Your task to perform on an android device: open device folders in google photos Image 0: 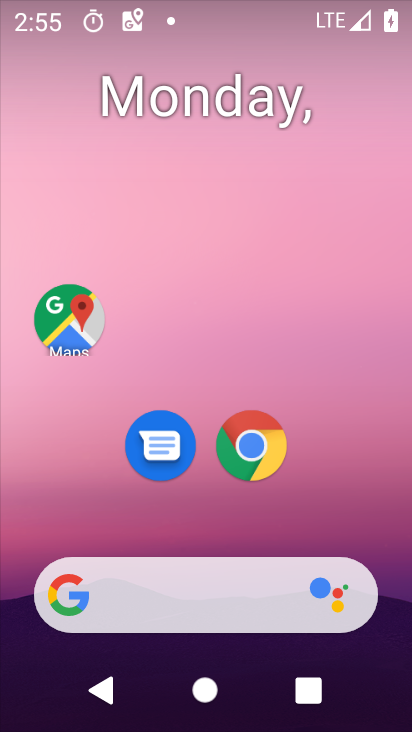
Step 0: drag from (217, 584) to (217, 171)
Your task to perform on an android device: open device folders in google photos Image 1: 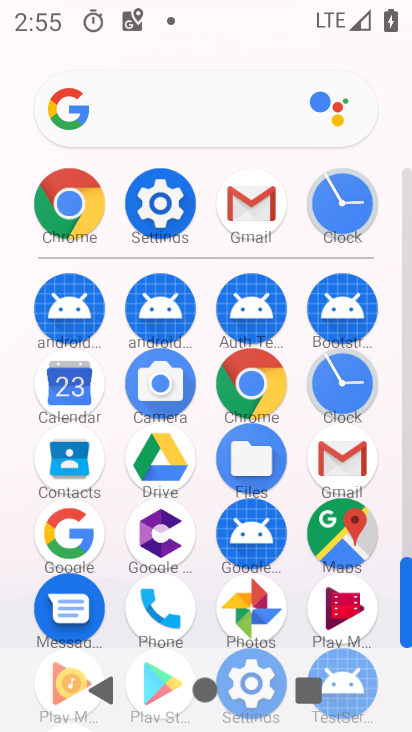
Step 1: click (238, 590)
Your task to perform on an android device: open device folders in google photos Image 2: 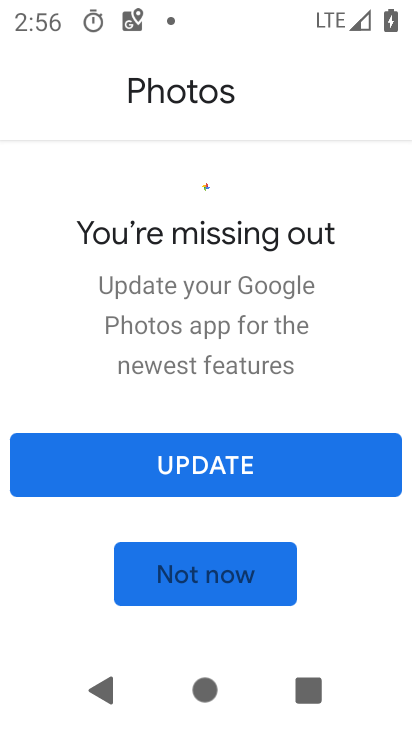
Step 2: drag from (238, 590) to (188, 590)
Your task to perform on an android device: open device folders in google photos Image 3: 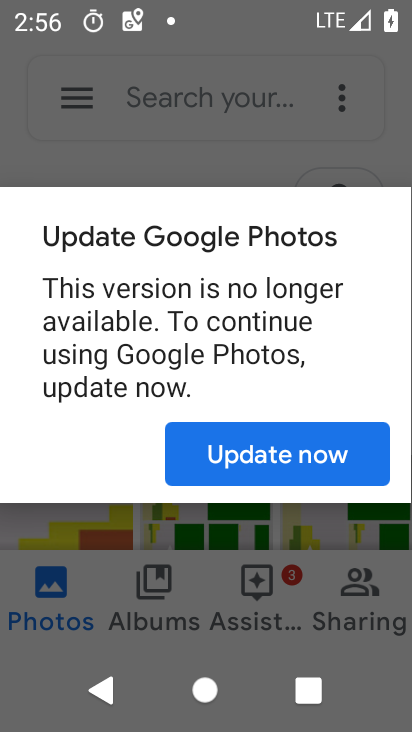
Step 3: click (236, 469)
Your task to perform on an android device: open device folders in google photos Image 4: 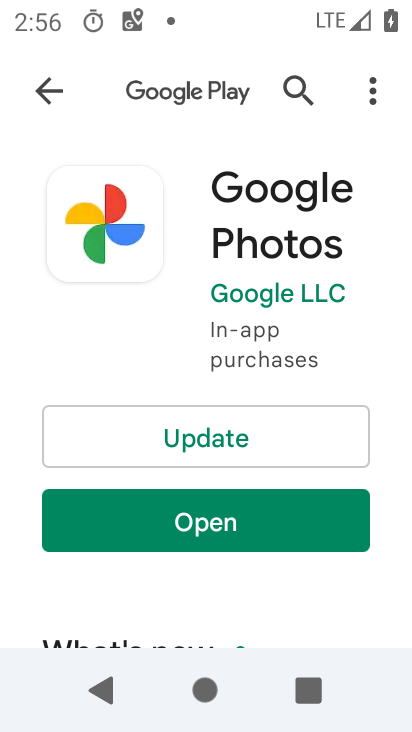
Step 4: click (208, 460)
Your task to perform on an android device: open device folders in google photos Image 5: 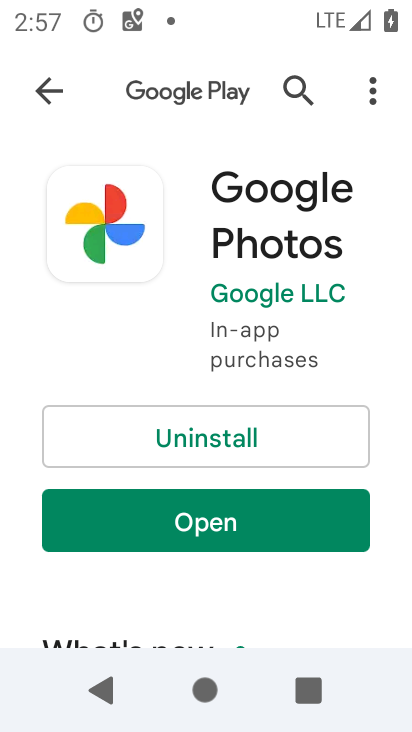
Step 5: click (211, 542)
Your task to perform on an android device: open device folders in google photos Image 6: 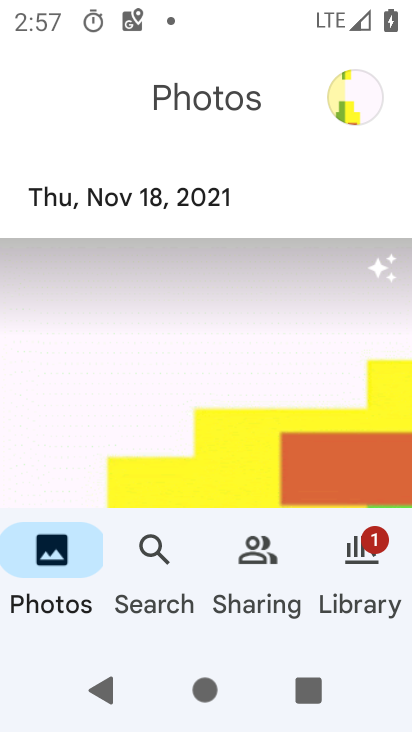
Step 6: click (353, 546)
Your task to perform on an android device: open device folders in google photos Image 7: 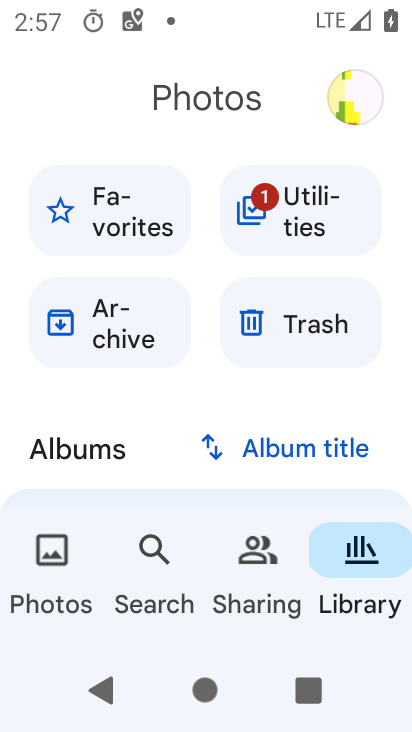
Step 7: task complete